Your task to perform on an android device: Open the stopwatch Image 0: 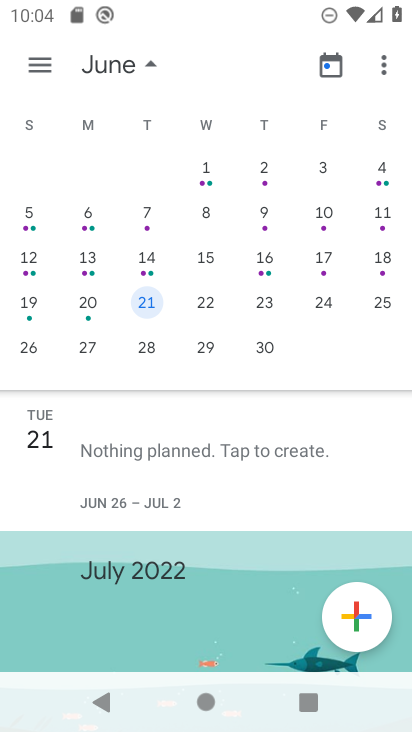
Step 0: press home button
Your task to perform on an android device: Open the stopwatch Image 1: 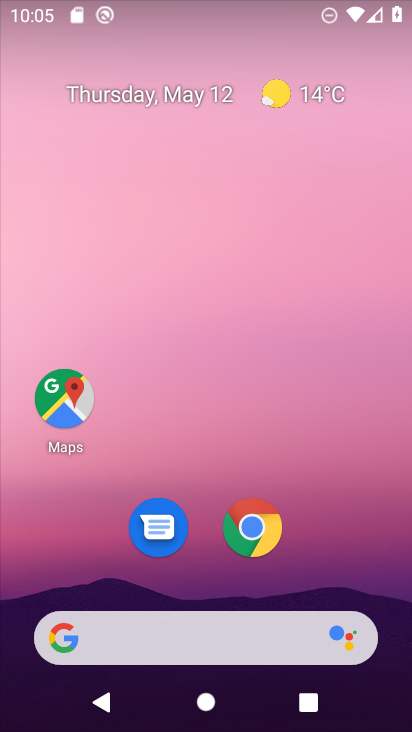
Step 1: drag from (327, 557) to (365, 59)
Your task to perform on an android device: Open the stopwatch Image 2: 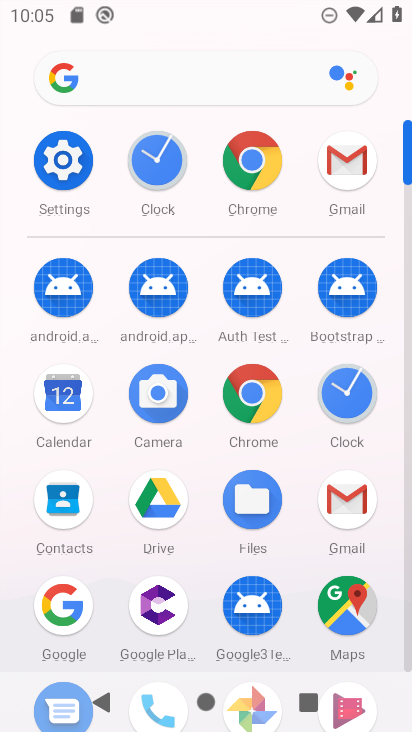
Step 2: click (151, 187)
Your task to perform on an android device: Open the stopwatch Image 3: 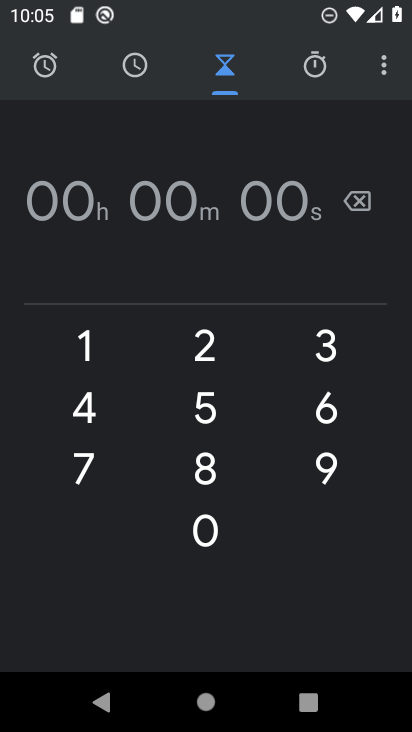
Step 3: click (310, 85)
Your task to perform on an android device: Open the stopwatch Image 4: 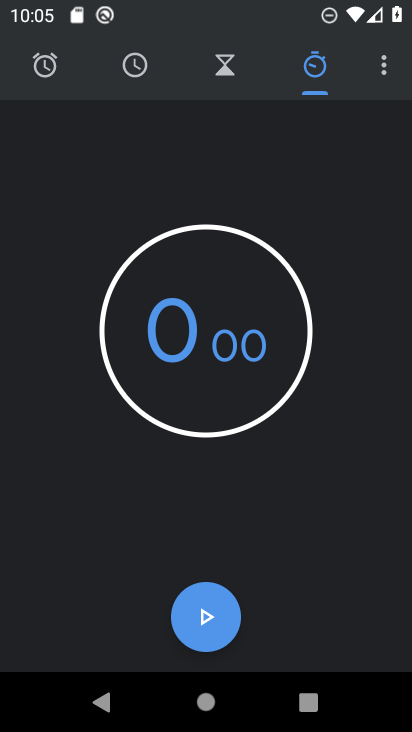
Step 4: task complete